Your task to perform on an android device: Clear all items from cart on target. Search for "beats solo 3" on target, select the first entry, and add it to the cart. Image 0: 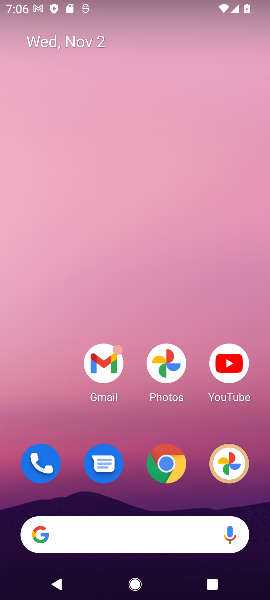
Step 0: click (162, 462)
Your task to perform on an android device: Clear all items from cart on target. Search for "beats solo 3" on target, select the first entry, and add it to the cart. Image 1: 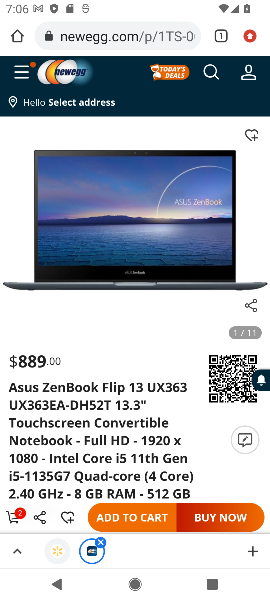
Step 1: click (96, 33)
Your task to perform on an android device: Clear all items from cart on target. Search for "beats solo 3" on target, select the first entry, and add it to the cart. Image 2: 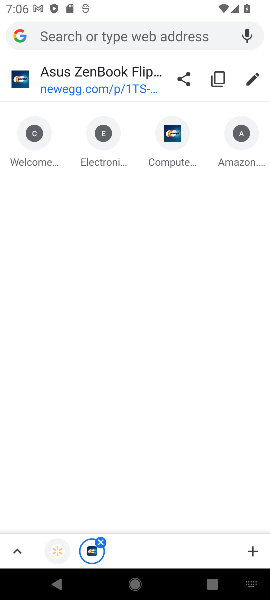
Step 2: type "target.com"
Your task to perform on an android device: Clear all items from cart on target. Search for "beats solo 3" on target, select the first entry, and add it to the cart. Image 3: 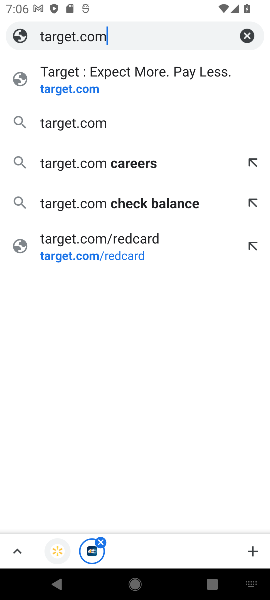
Step 3: click (59, 93)
Your task to perform on an android device: Clear all items from cart on target. Search for "beats solo 3" on target, select the first entry, and add it to the cart. Image 4: 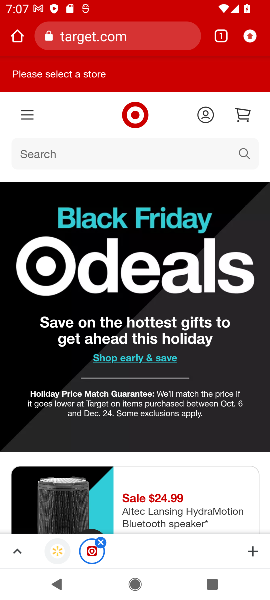
Step 4: click (244, 120)
Your task to perform on an android device: Clear all items from cart on target. Search for "beats solo 3" on target, select the first entry, and add it to the cart. Image 5: 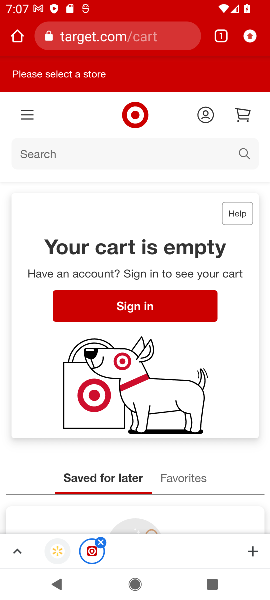
Step 5: click (233, 156)
Your task to perform on an android device: Clear all items from cart on target. Search for "beats solo 3" on target, select the first entry, and add it to the cart. Image 6: 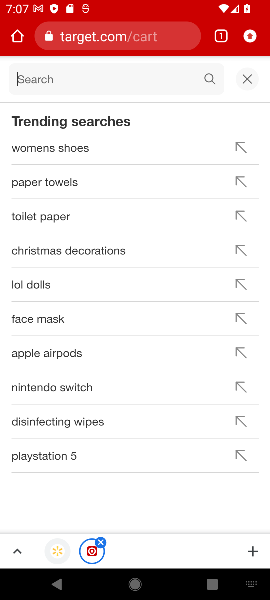
Step 6: type "beats solo 3"
Your task to perform on an android device: Clear all items from cart on target. Search for "beats solo 3" on target, select the first entry, and add it to the cart. Image 7: 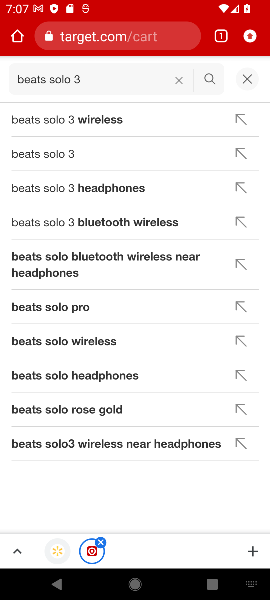
Step 7: click (45, 161)
Your task to perform on an android device: Clear all items from cart on target. Search for "beats solo 3" on target, select the first entry, and add it to the cart. Image 8: 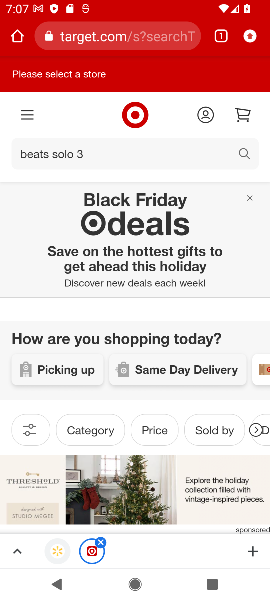
Step 8: drag from (128, 413) to (123, 198)
Your task to perform on an android device: Clear all items from cart on target. Search for "beats solo 3" on target, select the first entry, and add it to the cart. Image 9: 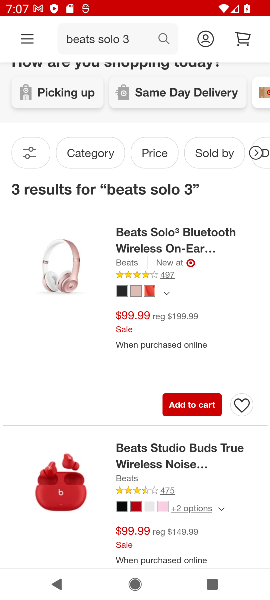
Step 9: click (106, 274)
Your task to perform on an android device: Clear all items from cart on target. Search for "beats solo 3" on target, select the first entry, and add it to the cart. Image 10: 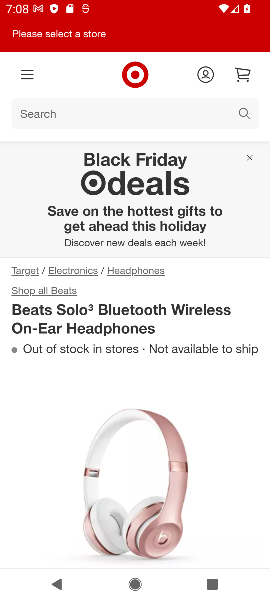
Step 10: drag from (95, 405) to (99, 234)
Your task to perform on an android device: Clear all items from cart on target. Search for "beats solo 3" on target, select the first entry, and add it to the cart. Image 11: 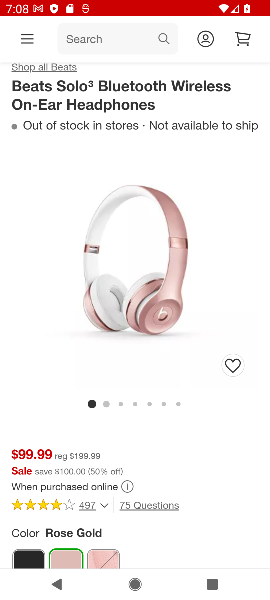
Step 11: drag from (100, 413) to (105, 259)
Your task to perform on an android device: Clear all items from cart on target. Search for "beats solo 3" on target, select the first entry, and add it to the cart. Image 12: 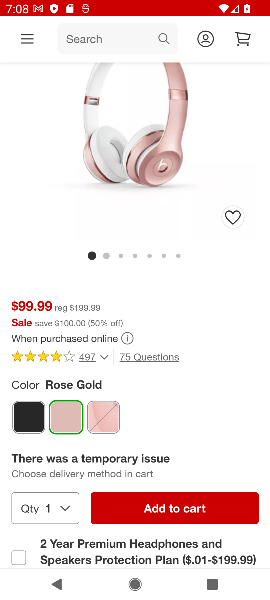
Step 12: click (151, 502)
Your task to perform on an android device: Clear all items from cart on target. Search for "beats solo 3" on target, select the first entry, and add it to the cart. Image 13: 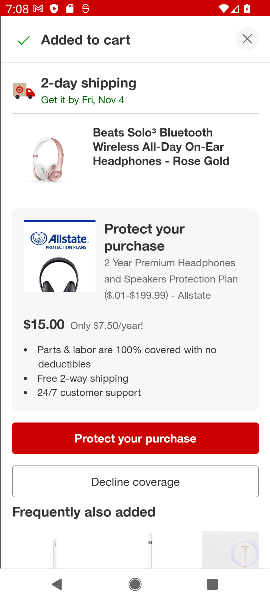
Step 13: click (243, 39)
Your task to perform on an android device: Clear all items from cart on target. Search for "beats solo 3" on target, select the first entry, and add it to the cart. Image 14: 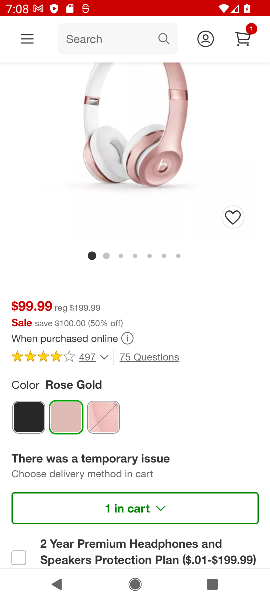
Step 14: drag from (143, 387) to (146, 312)
Your task to perform on an android device: Clear all items from cart on target. Search for "beats solo 3" on target, select the first entry, and add it to the cart. Image 15: 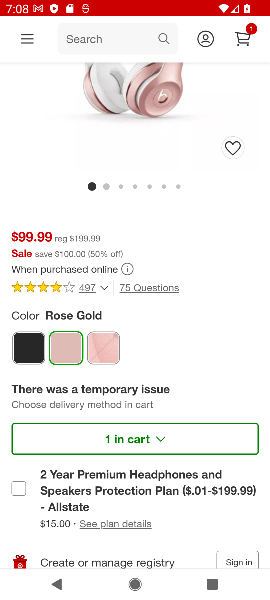
Step 15: click (237, 40)
Your task to perform on an android device: Clear all items from cart on target. Search for "beats solo 3" on target, select the first entry, and add it to the cart. Image 16: 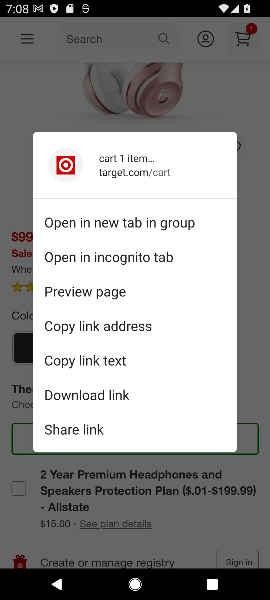
Step 16: click (247, 37)
Your task to perform on an android device: Clear all items from cart on target. Search for "beats solo 3" on target, select the first entry, and add it to the cart. Image 17: 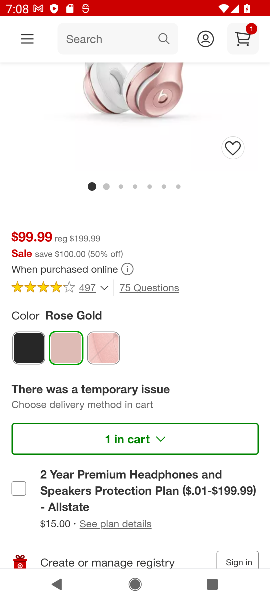
Step 17: click (245, 41)
Your task to perform on an android device: Clear all items from cart on target. Search for "beats solo 3" on target, select the first entry, and add it to the cart. Image 18: 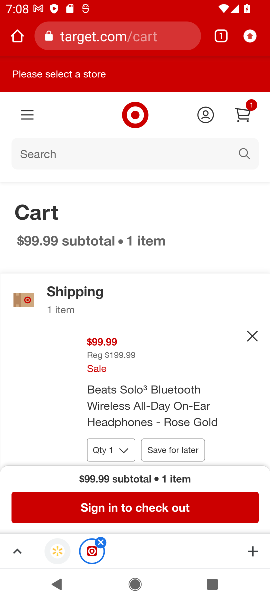
Step 18: click (113, 508)
Your task to perform on an android device: Clear all items from cart on target. Search for "beats solo 3" on target, select the first entry, and add it to the cart. Image 19: 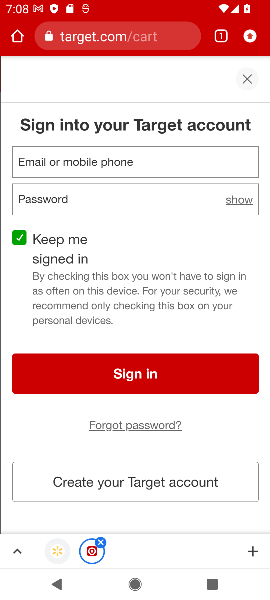
Step 19: task complete